Your task to perform on an android device: turn off notifications settings in the gmail app Image 0: 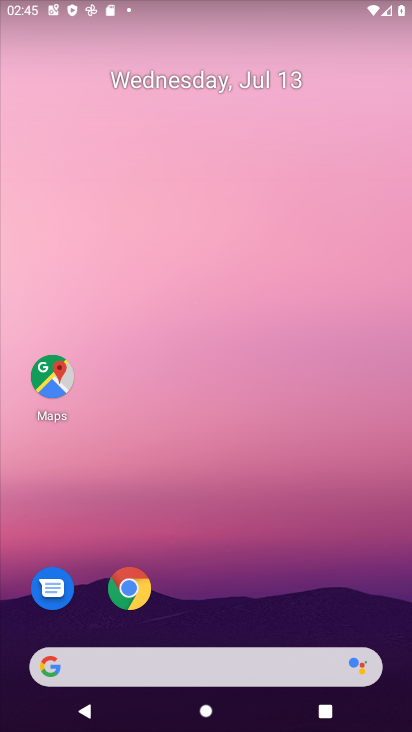
Step 0: drag from (404, 711) to (303, 193)
Your task to perform on an android device: turn off notifications settings in the gmail app Image 1: 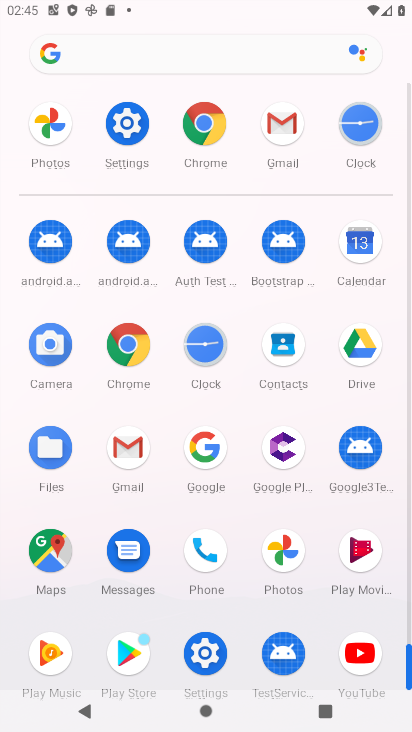
Step 1: click (143, 447)
Your task to perform on an android device: turn off notifications settings in the gmail app Image 2: 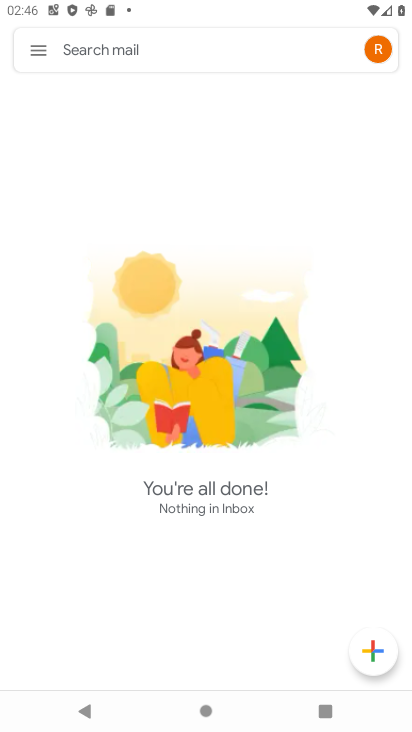
Step 2: click (43, 55)
Your task to perform on an android device: turn off notifications settings in the gmail app Image 3: 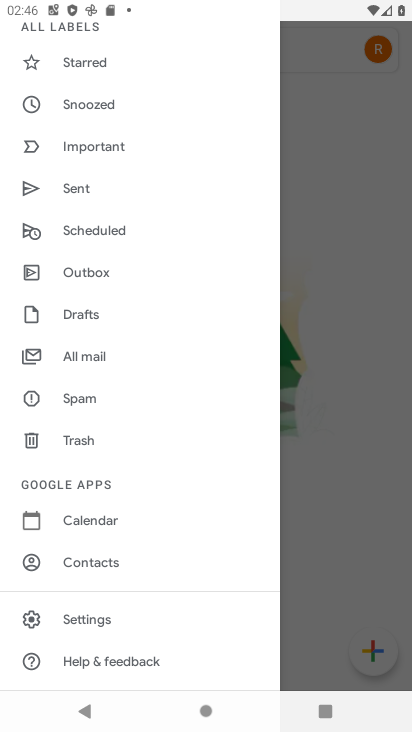
Step 3: click (73, 622)
Your task to perform on an android device: turn off notifications settings in the gmail app Image 4: 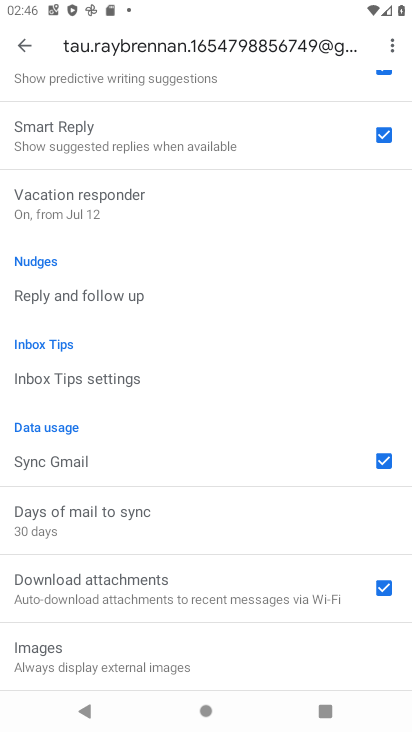
Step 4: drag from (157, 170) to (198, 534)
Your task to perform on an android device: turn off notifications settings in the gmail app Image 5: 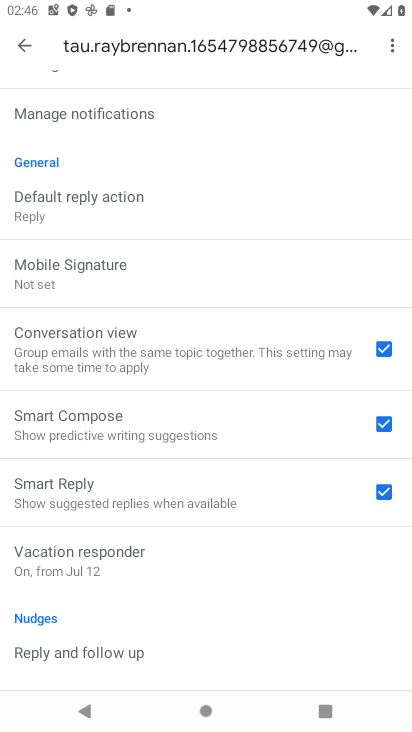
Step 5: drag from (151, 206) to (192, 577)
Your task to perform on an android device: turn off notifications settings in the gmail app Image 6: 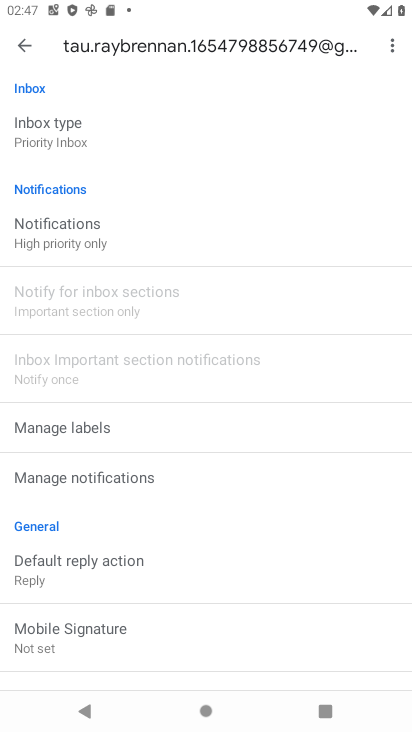
Step 6: click (47, 225)
Your task to perform on an android device: turn off notifications settings in the gmail app Image 7: 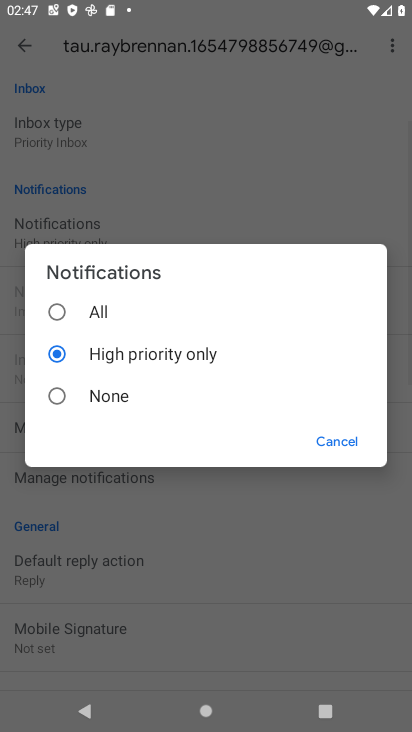
Step 7: click (55, 396)
Your task to perform on an android device: turn off notifications settings in the gmail app Image 8: 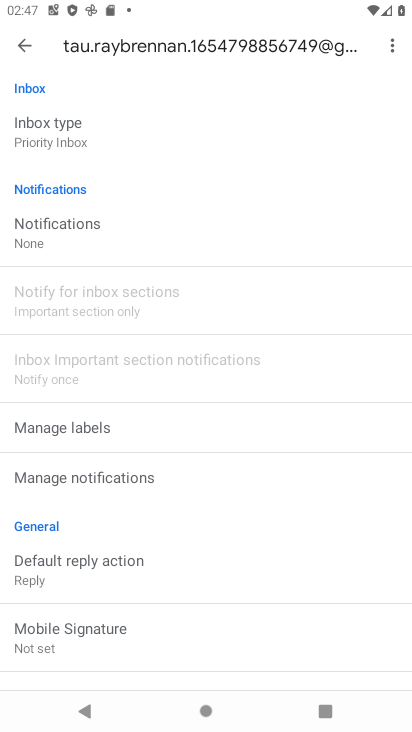
Step 8: task complete